Your task to perform on an android device: What's on my calendar tomorrow? Image 0: 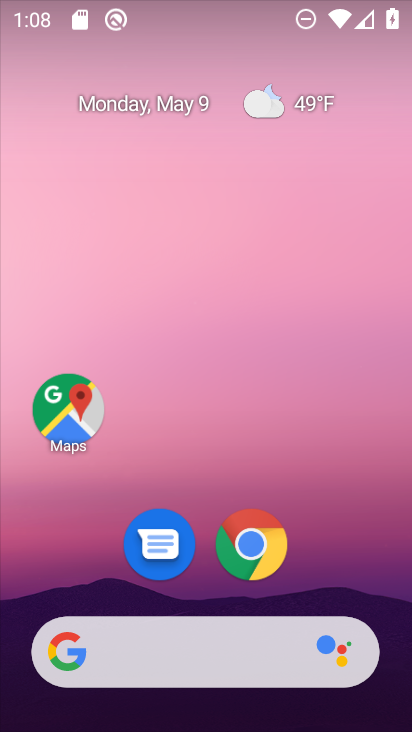
Step 0: drag from (348, 538) to (308, 144)
Your task to perform on an android device: What's on my calendar tomorrow? Image 1: 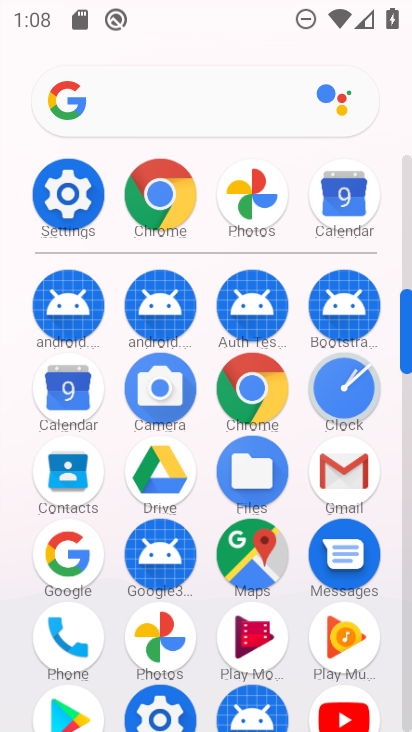
Step 1: click (56, 393)
Your task to perform on an android device: What's on my calendar tomorrow? Image 2: 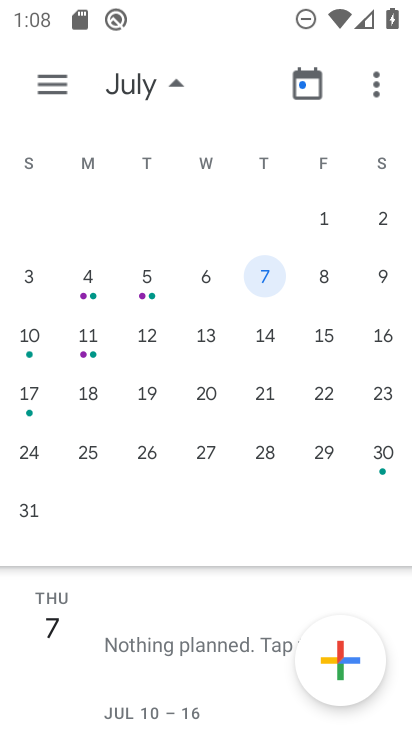
Step 2: click (311, 285)
Your task to perform on an android device: What's on my calendar tomorrow? Image 3: 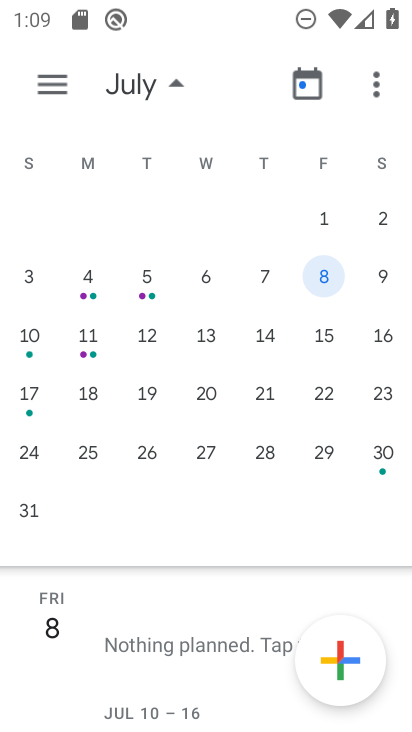
Step 3: task complete